Your task to perform on an android device: Search for razer blade on target, select the first entry, and add it to the cart. Image 0: 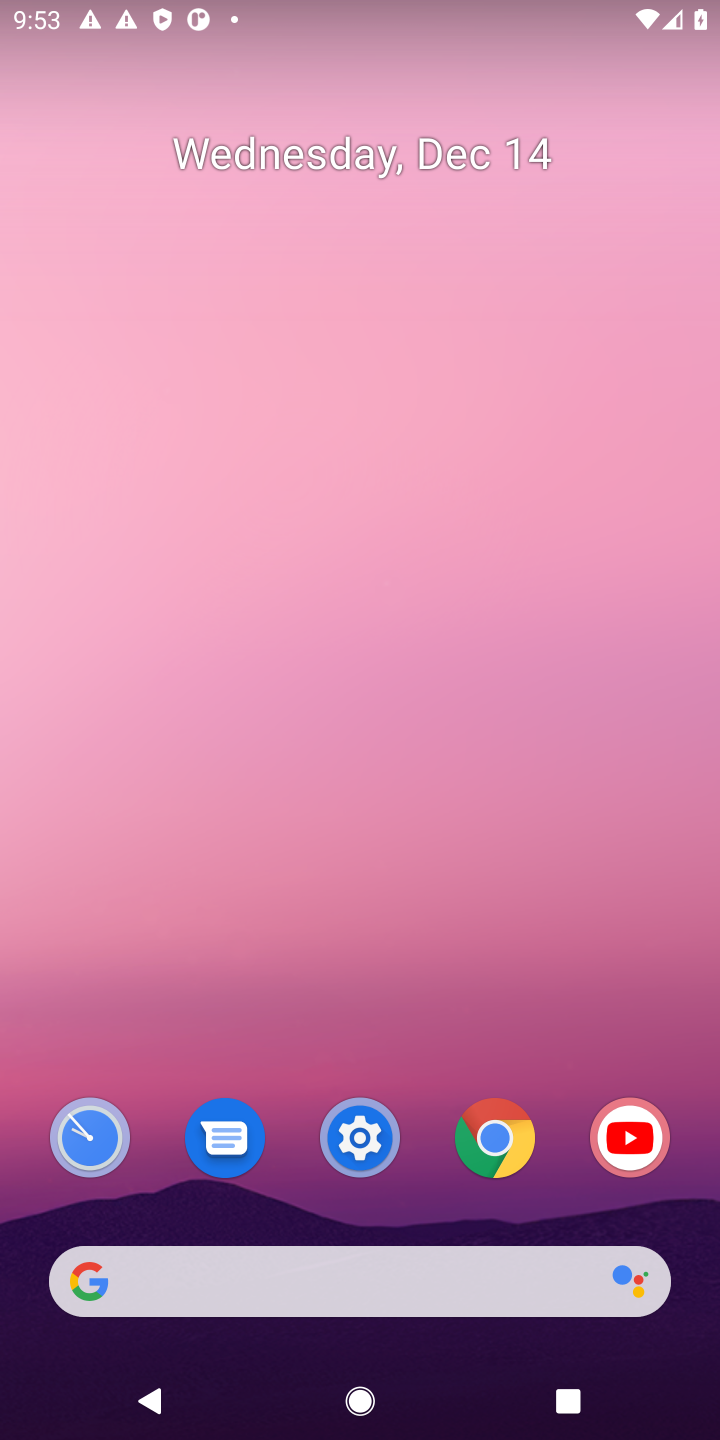
Step 0: click (505, 1147)
Your task to perform on an android device: Search for razer blade on target, select the first entry, and add it to the cart. Image 1: 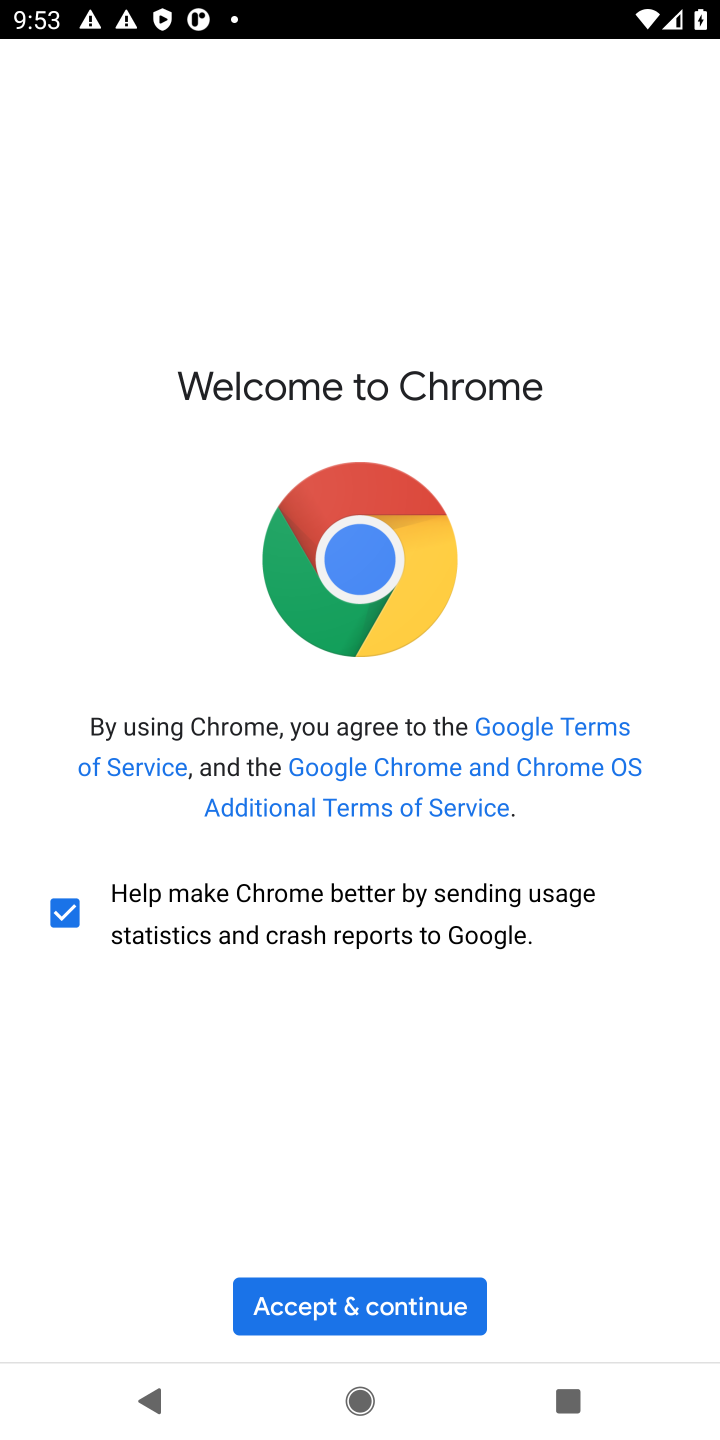
Step 1: click (505, 1147)
Your task to perform on an android device: Search for razer blade on target, select the first entry, and add it to the cart. Image 2: 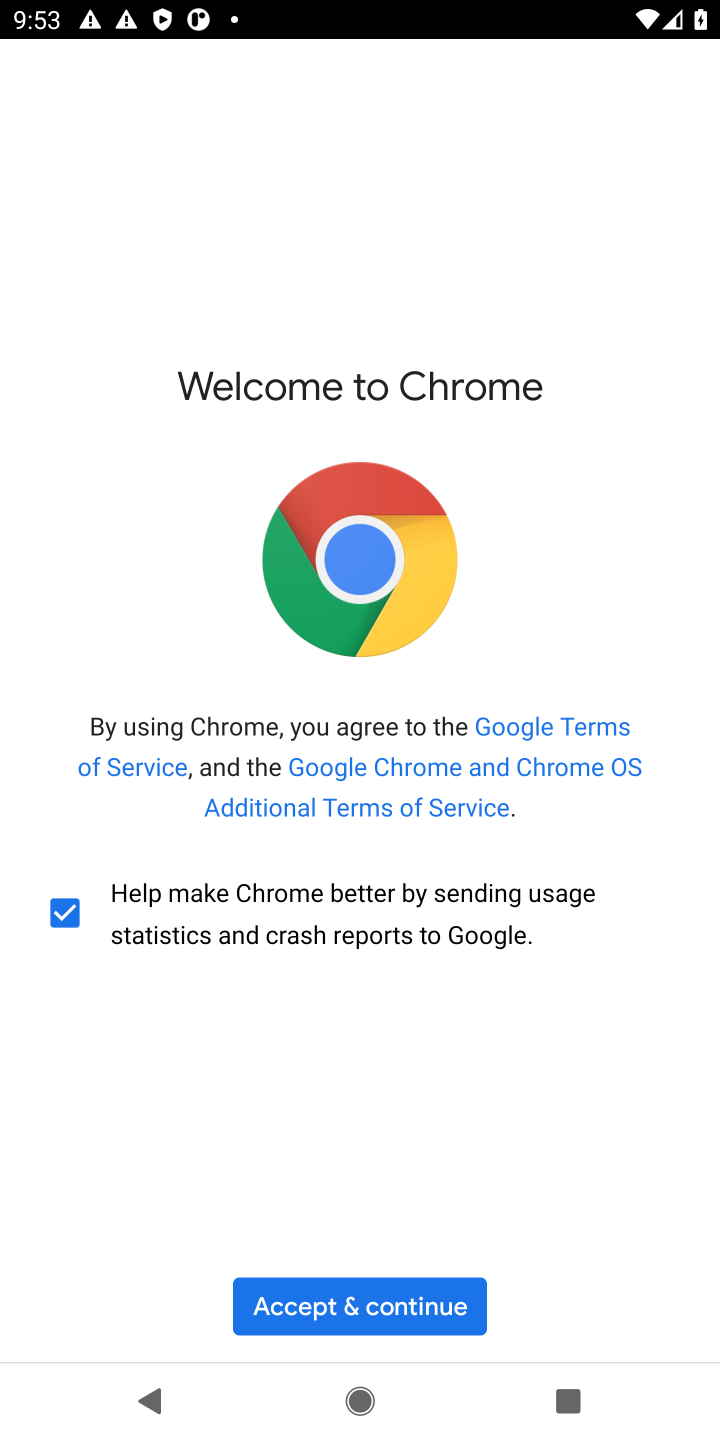
Step 2: click (347, 1303)
Your task to perform on an android device: Search for razer blade on target, select the first entry, and add it to the cart. Image 3: 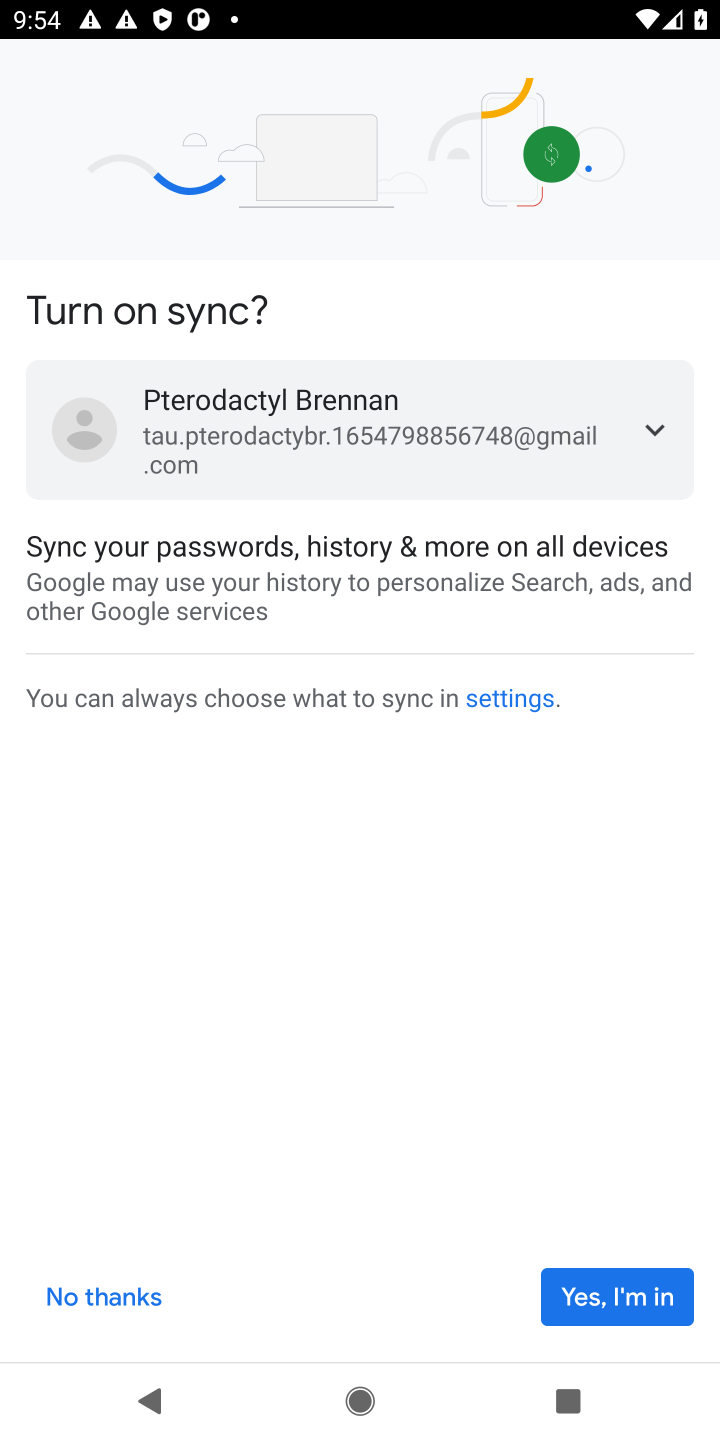
Step 3: click (88, 1302)
Your task to perform on an android device: Search for razer blade on target, select the first entry, and add it to the cart. Image 4: 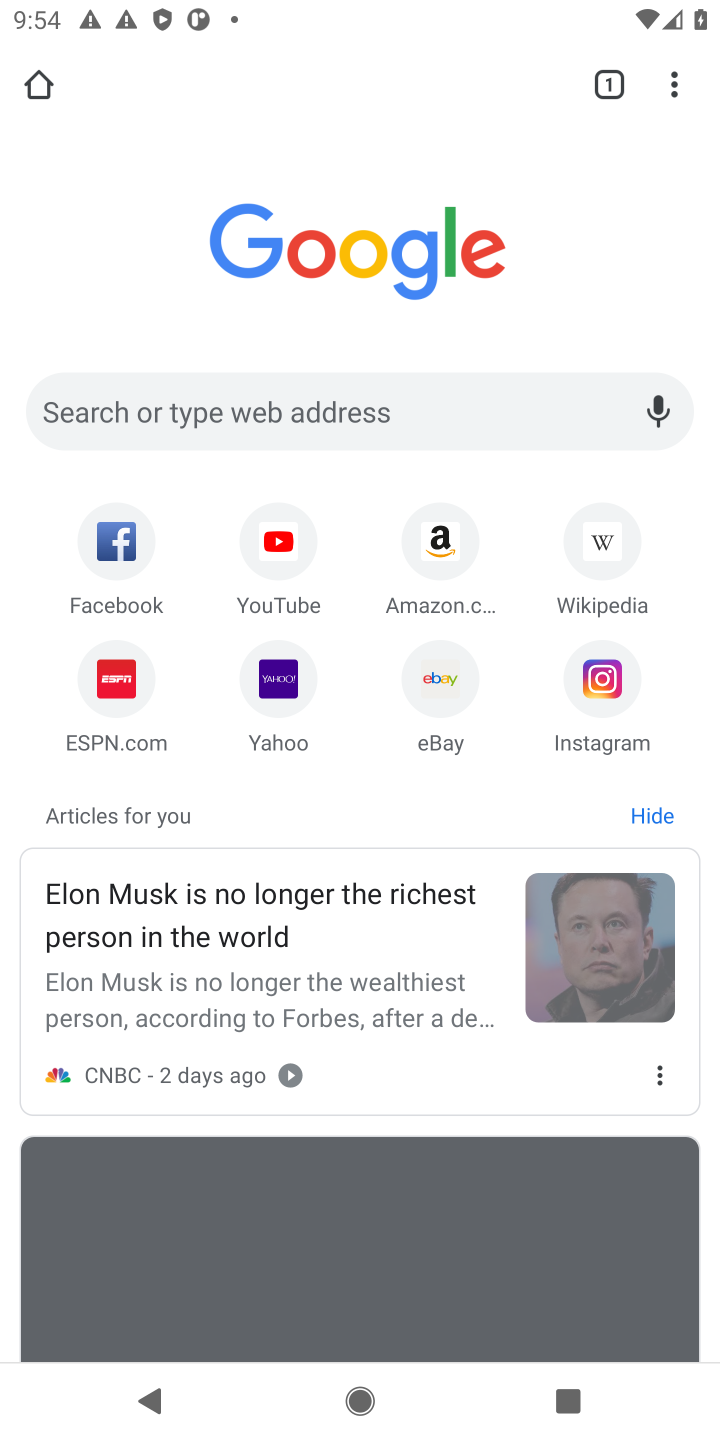
Step 4: click (206, 386)
Your task to perform on an android device: Search for razer blade on target, select the first entry, and add it to the cart. Image 5: 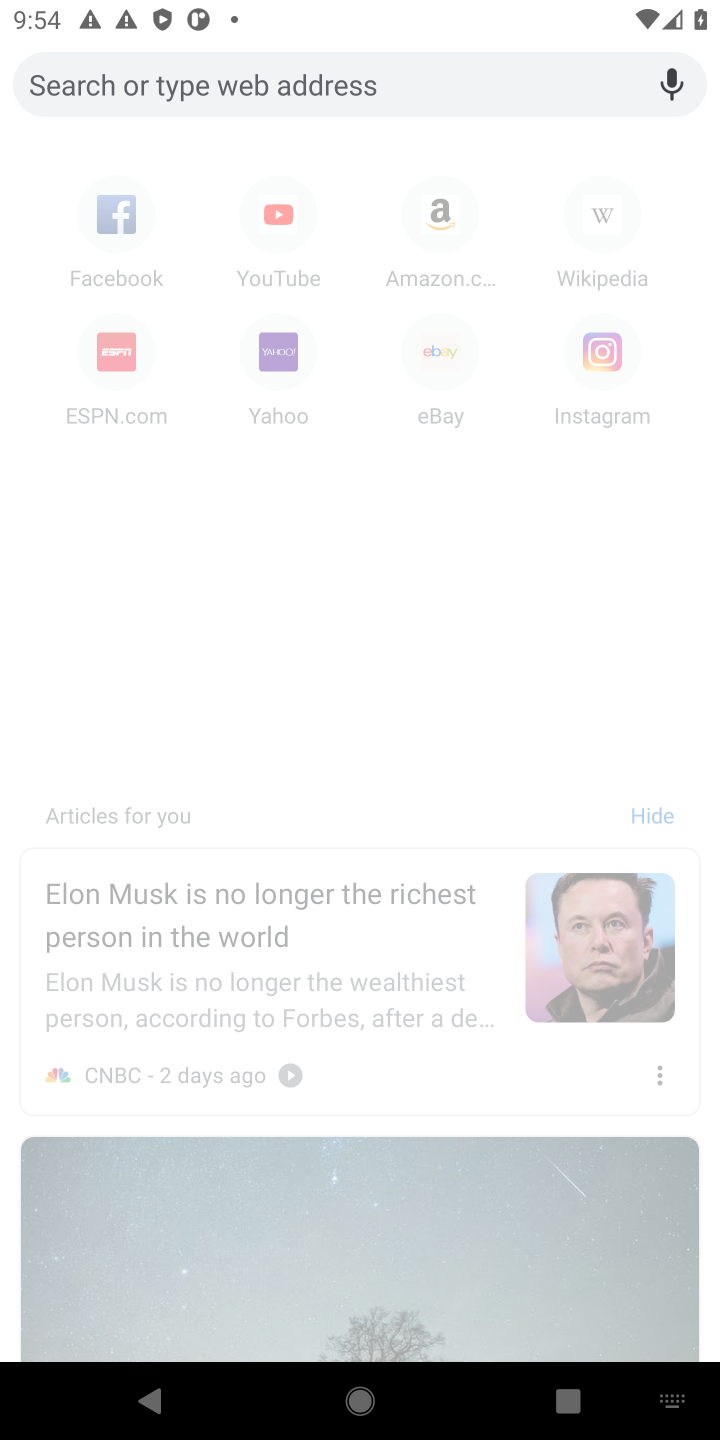
Step 5: type "target.com"
Your task to perform on an android device: Search for razer blade on target, select the first entry, and add it to the cart. Image 6: 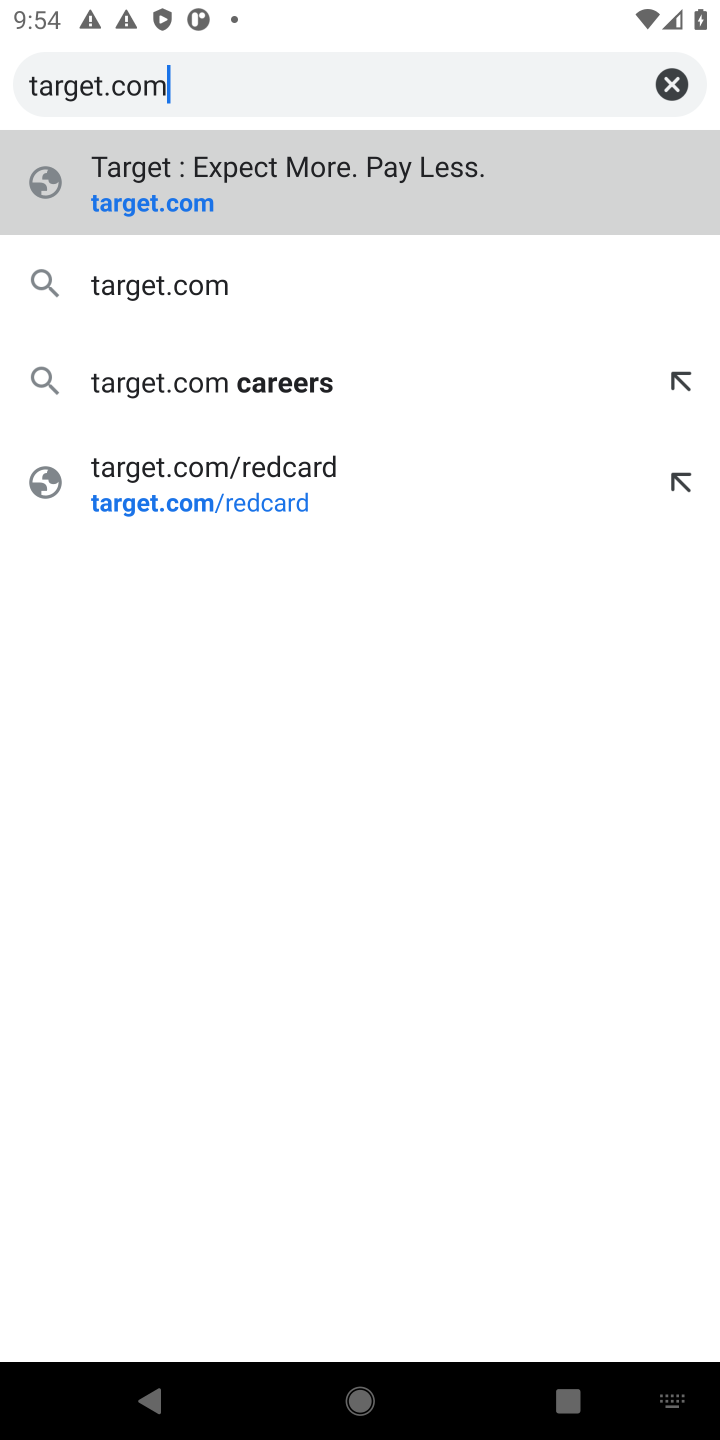
Step 6: click (122, 210)
Your task to perform on an android device: Search for razer blade on target, select the first entry, and add it to the cart. Image 7: 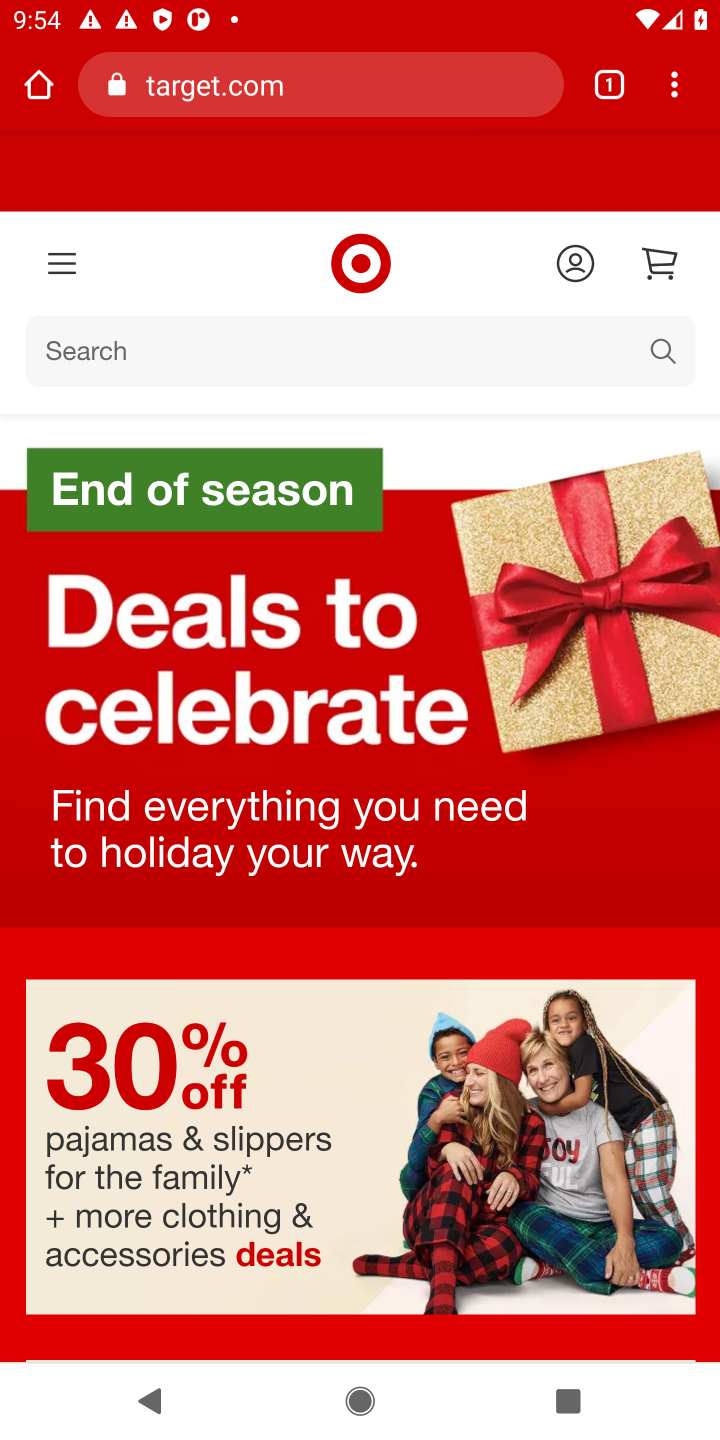
Step 7: click (93, 340)
Your task to perform on an android device: Search for razer blade on target, select the first entry, and add it to the cart. Image 8: 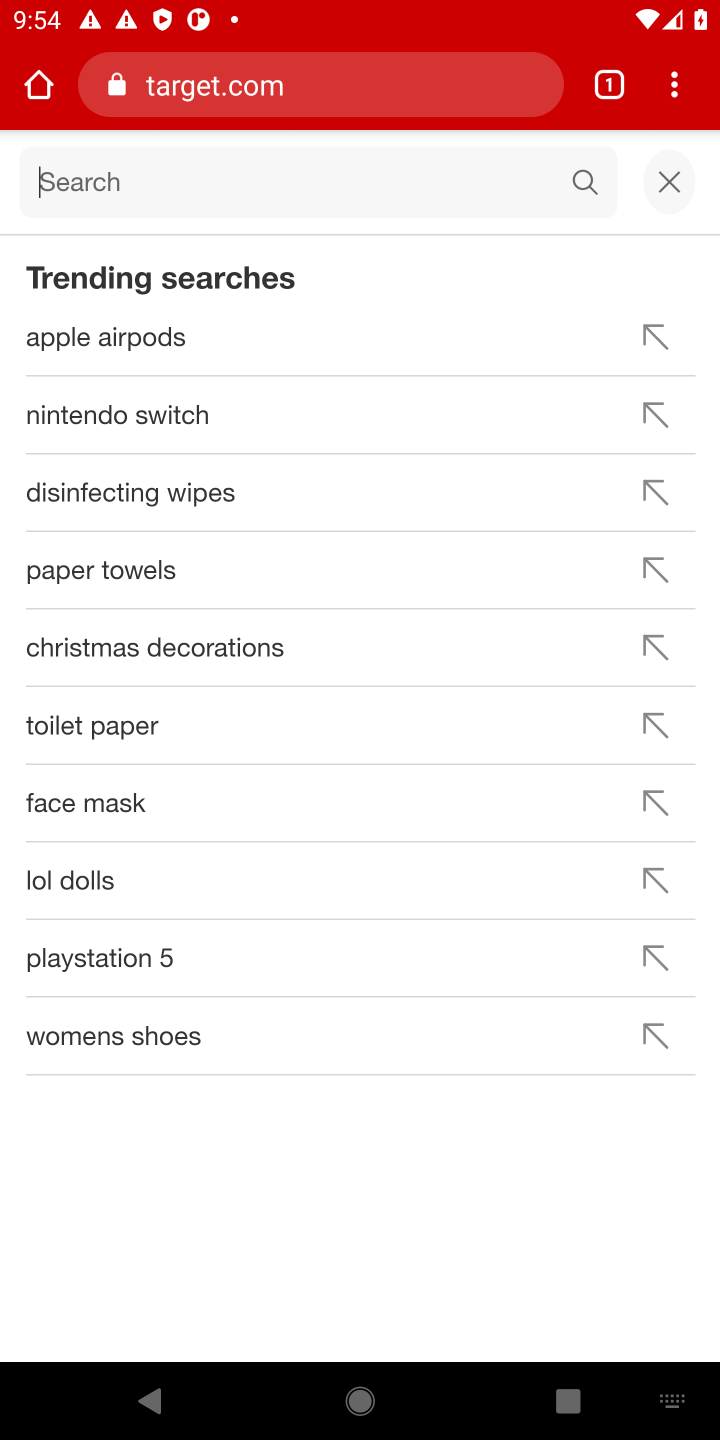
Step 8: type "razer blade"
Your task to perform on an android device: Search for razer blade on target, select the first entry, and add it to the cart. Image 9: 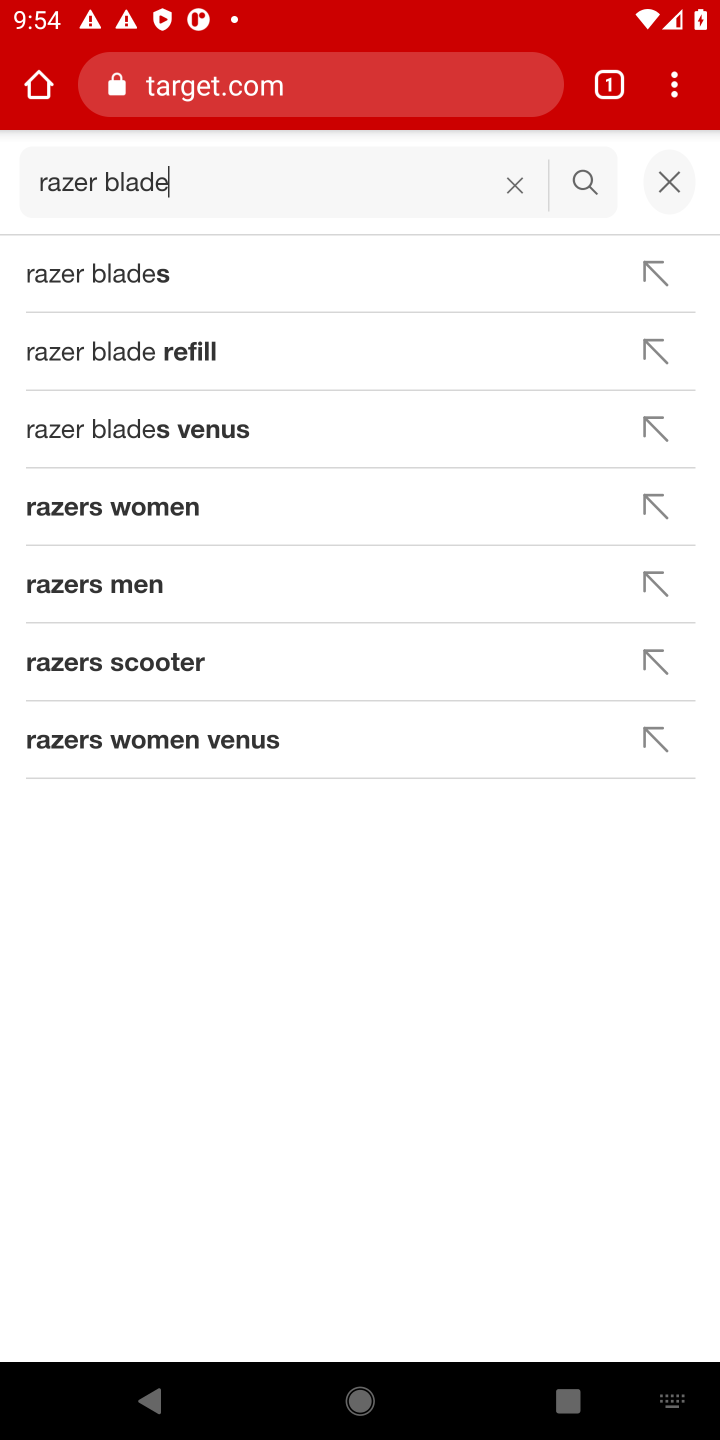
Step 9: click (584, 197)
Your task to perform on an android device: Search for razer blade on target, select the first entry, and add it to the cart. Image 10: 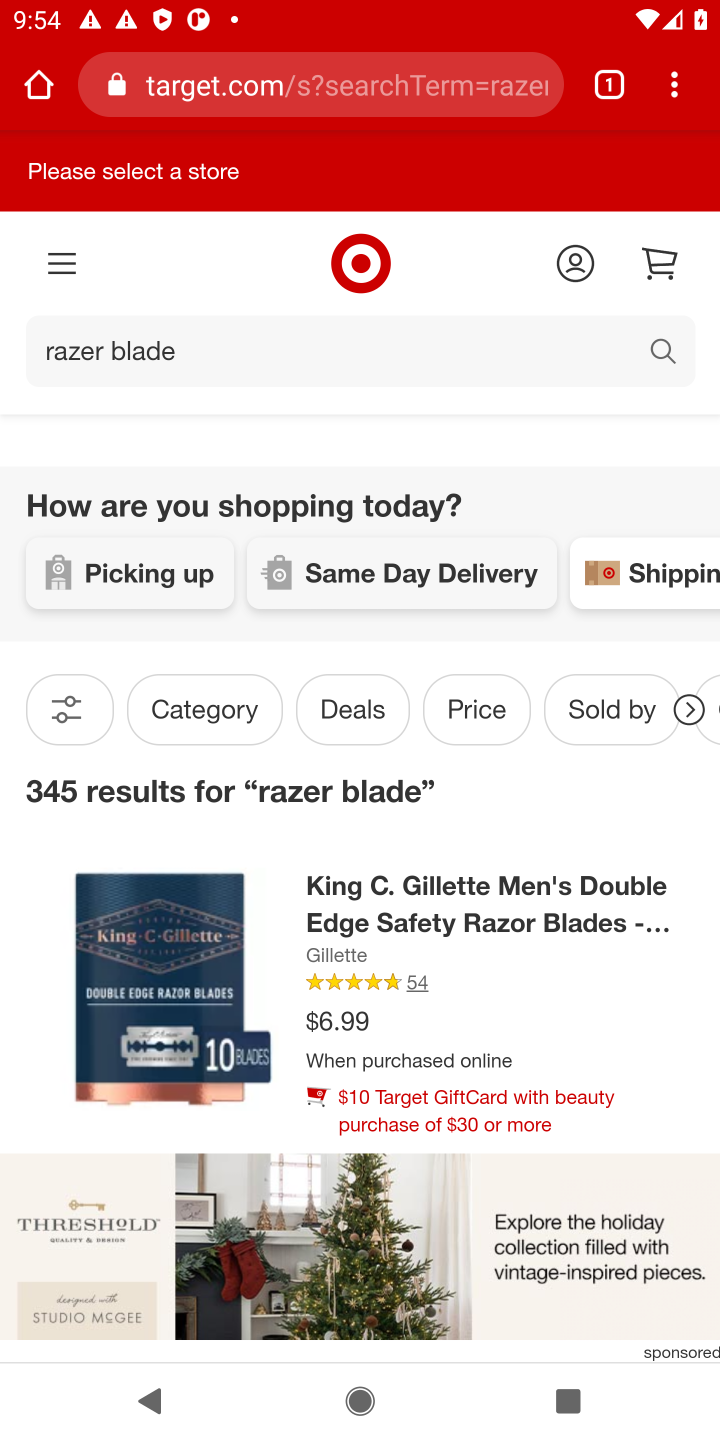
Step 10: task complete